Your task to perform on an android device: turn on wifi Image 0: 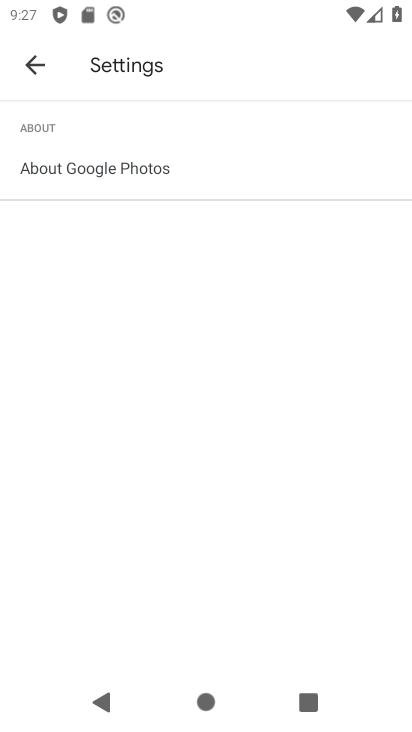
Step 0: press home button
Your task to perform on an android device: turn on wifi Image 1: 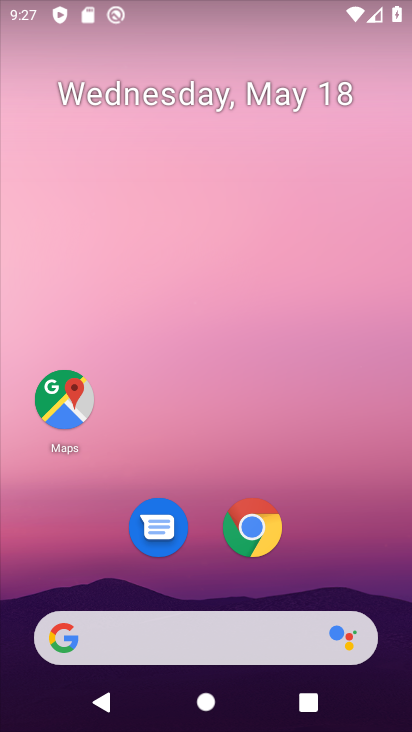
Step 1: drag from (329, 555) to (259, 107)
Your task to perform on an android device: turn on wifi Image 2: 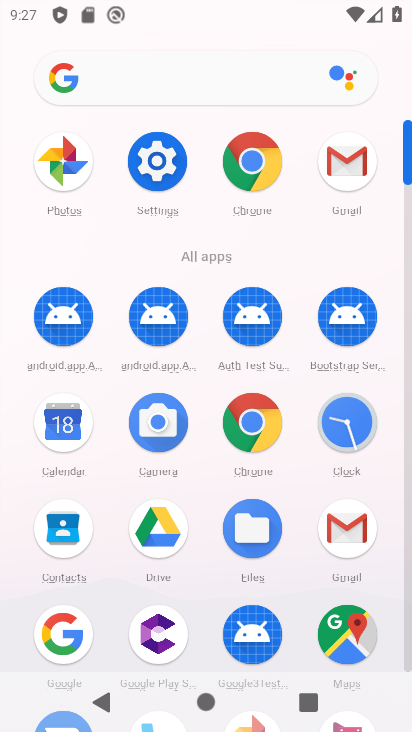
Step 2: click (172, 167)
Your task to perform on an android device: turn on wifi Image 3: 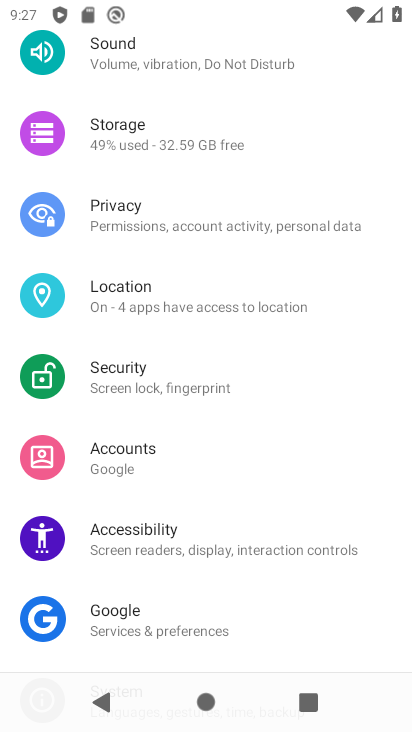
Step 3: drag from (250, 113) to (230, 476)
Your task to perform on an android device: turn on wifi Image 4: 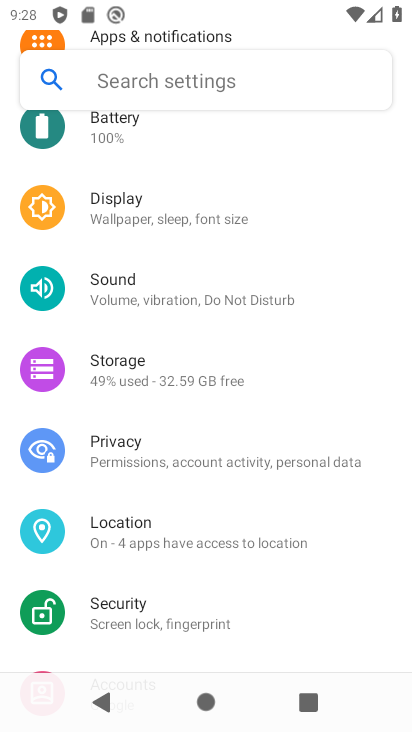
Step 4: drag from (233, 139) to (216, 568)
Your task to perform on an android device: turn on wifi Image 5: 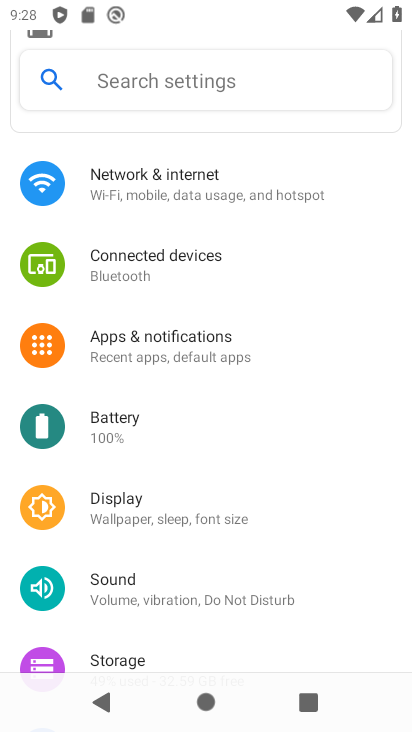
Step 5: click (222, 188)
Your task to perform on an android device: turn on wifi Image 6: 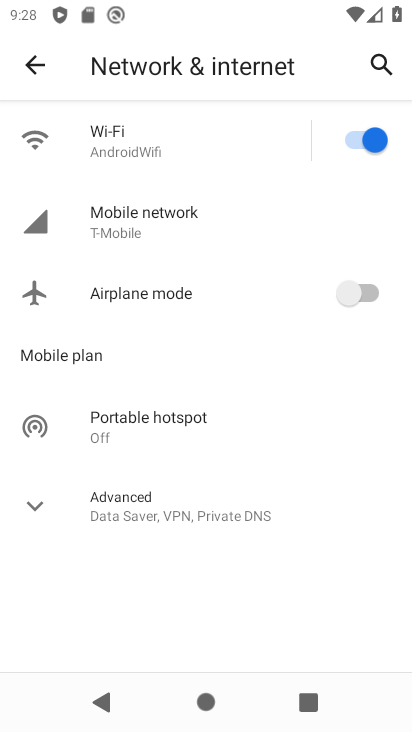
Step 6: task complete